Your task to perform on an android device: What's the weather today? Image 0: 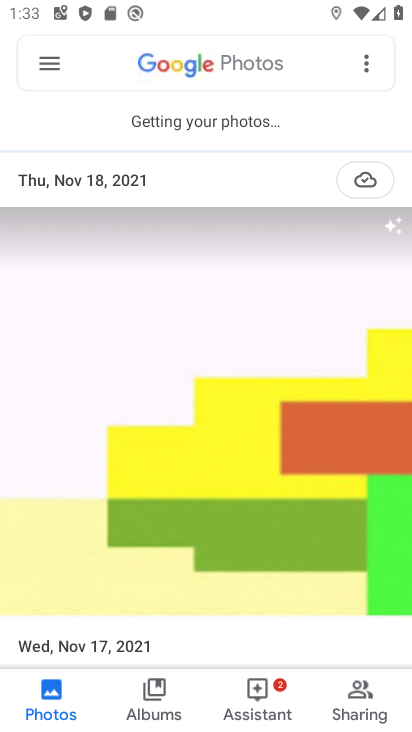
Step 0: press home button
Your task to perform on an android device: What's the weather today? Image 1: 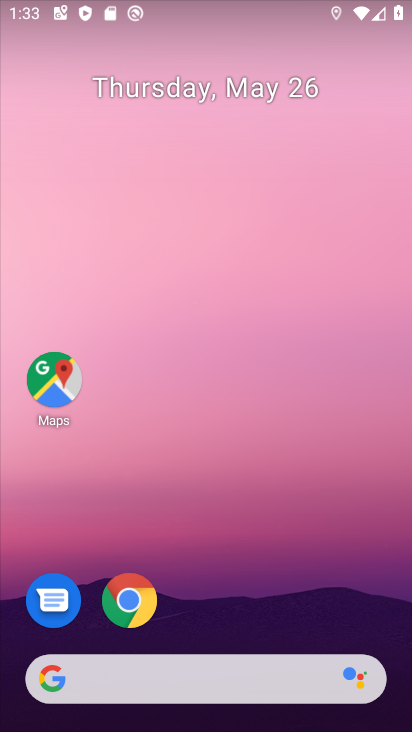
Step 1: click (115, 667)
Your task to perform on an android device: What's the weather today? Image 2: 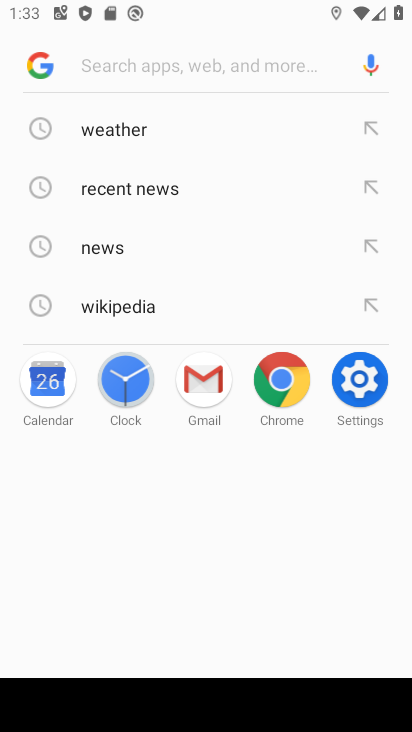
Step 2: click (161, 140)
Your task to perform on an android device: What's the weather today? Image 3: 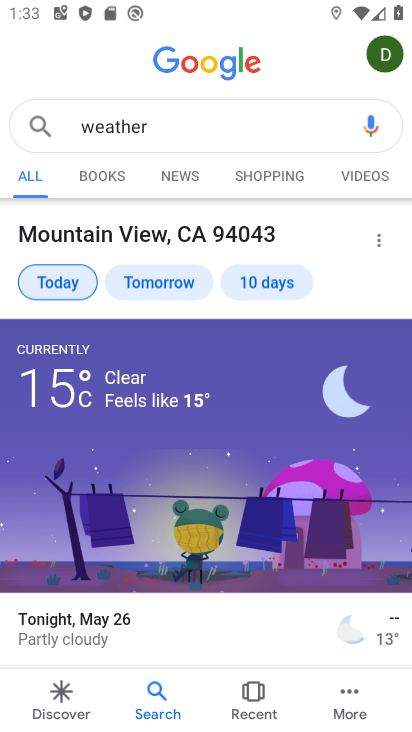
Step 3: task complete